Your task to perform on an android device: Is it going to rain tomorrow? Image 0: 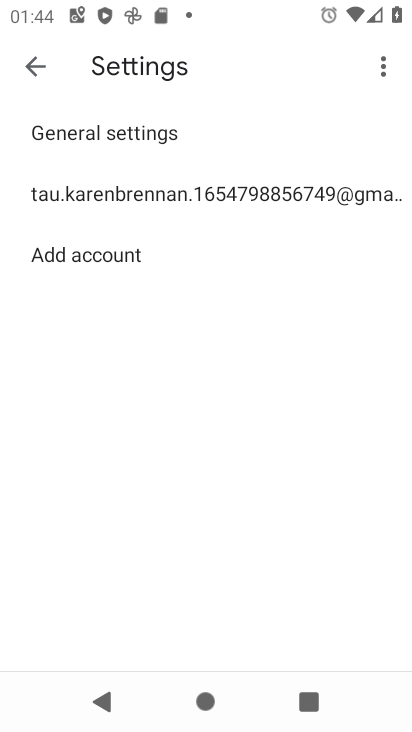
Step 0: press home button
Your task to perform on an android device: Is it going to rain tomorrow? Image 1: 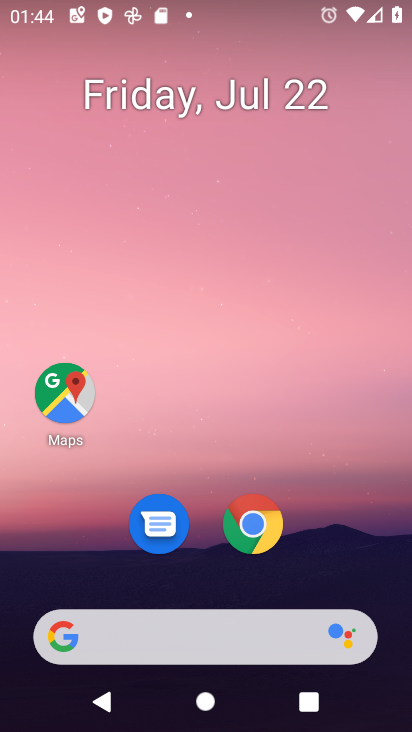
Step 1: click (128, 629)
Your task to perform on an android device: Is it going to rain tomorrow? Image 2: 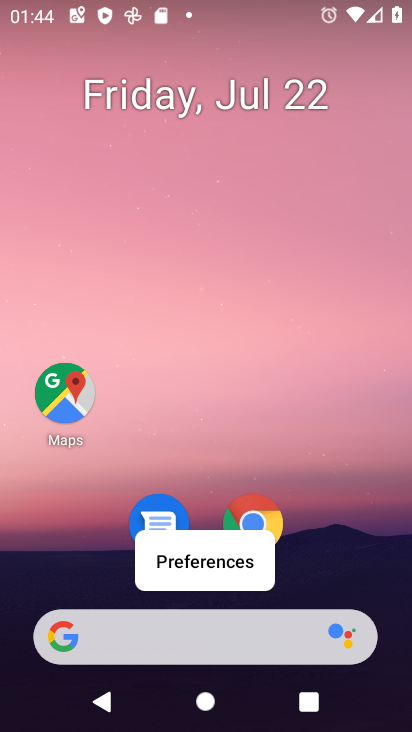
Step 2: click (128, 629)
Your task to perform on an android device: Is it going to rain tomorrow? Image 3: 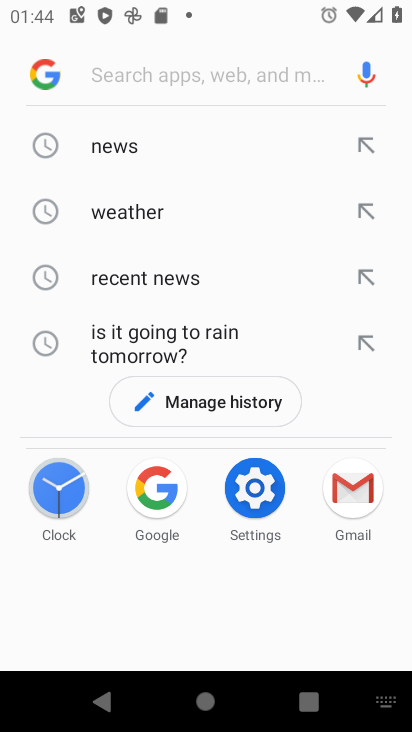
Step 3: click (122, 226)
Your task to perform on an android device: Is it going to rain tomorrow? Image 4: 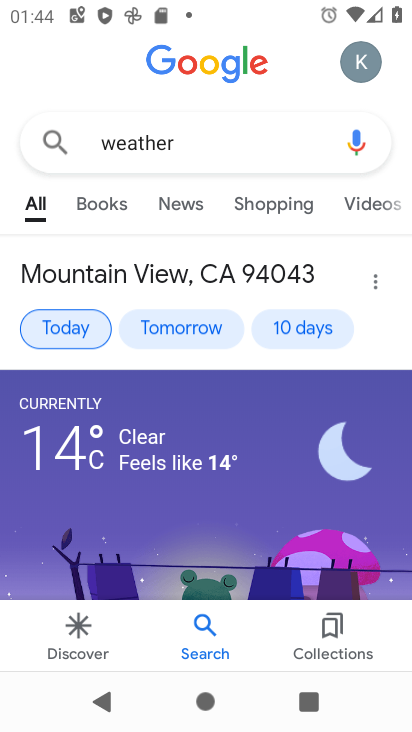
Step 4: click (174, 324)
Your task to perform on an android device: Is it going to rain tomorrow? Image 5: 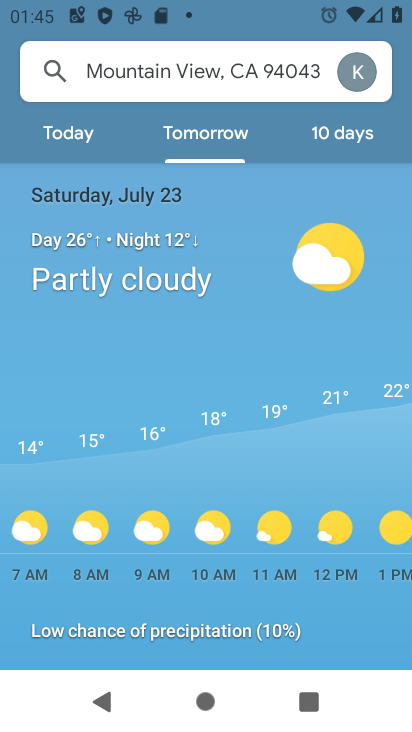
Step 5: task complete